Your task to perform on an android device: turn off smart reply in the gmail app Image 0: 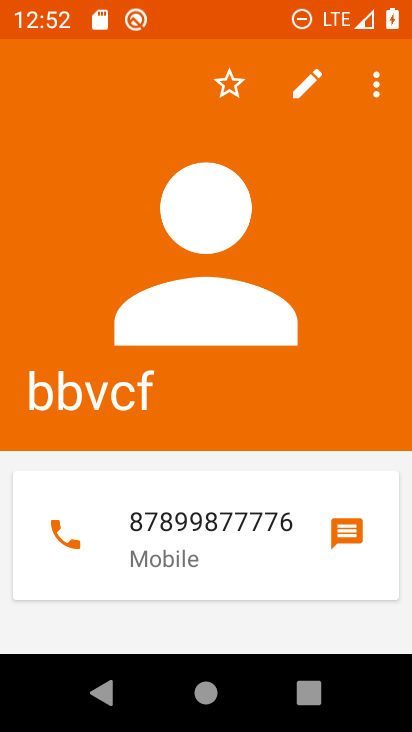
Step 0: press home button
Your task to perform on an android device: turn off smart reply in the gmail app Image 1: 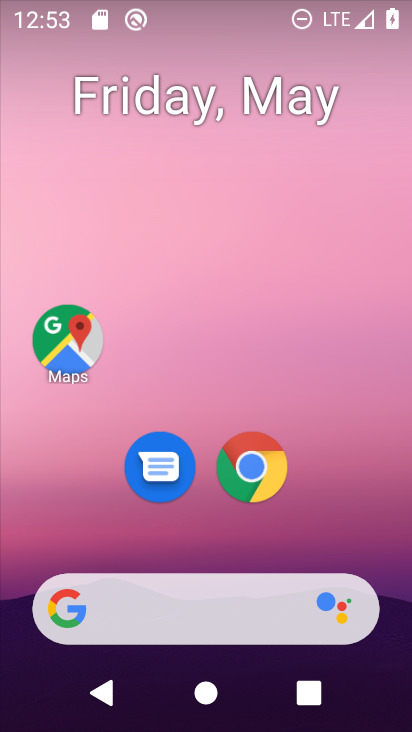
Step 1: drag from (347, 514) to (379, 2)
Your task to perform on an android device: turn off smart reply in the gmail app Image 2: 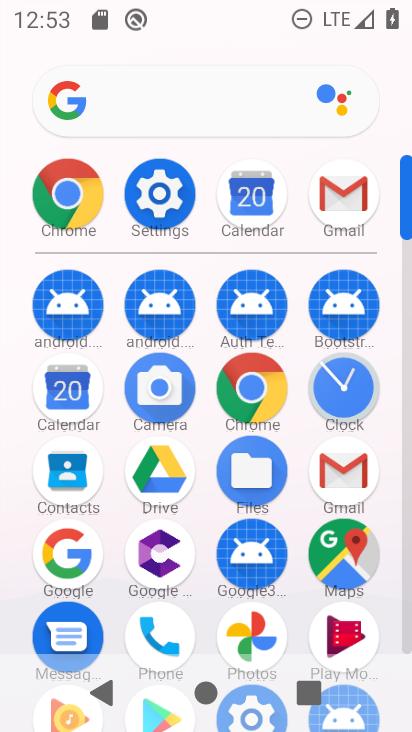
Step 2: click (339, 468)
Your task to perform on an android device: turn off smart reply in the gmail app Image 3: 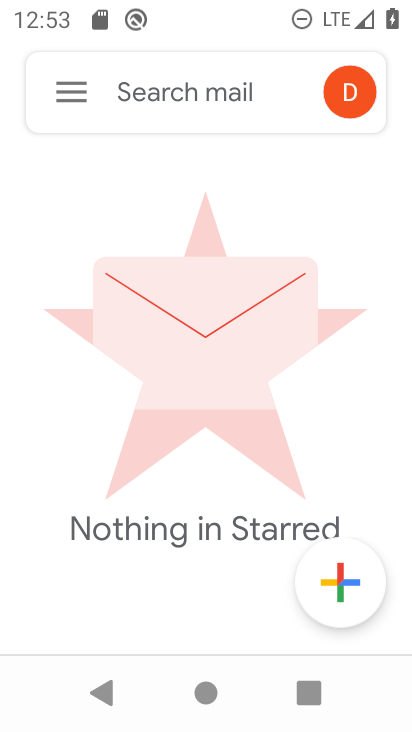
Step 3: click (64, 103)
Your task to perform on an android device: turn off smart reply in the gmail app Image 4: 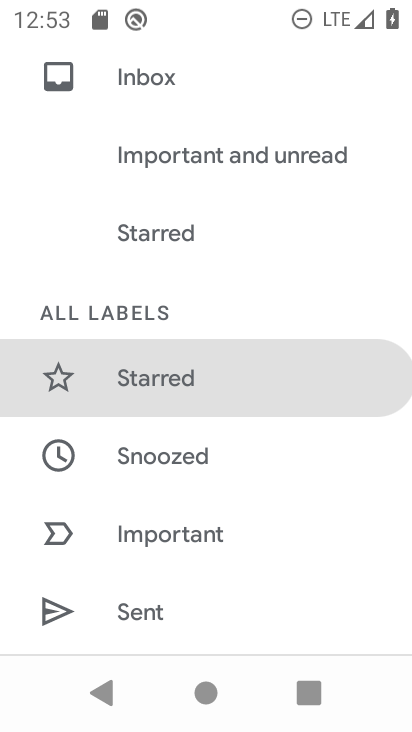
Step 4: drag from (157, 616) to (160, 68)
Your task to perform on an android device: turn off smart reply in the gmail app Image 5: 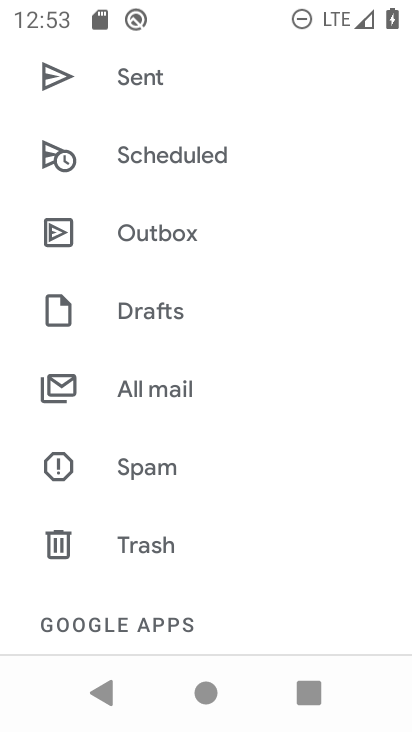
Step 5: drag from (253, 634) to (184, 118)
Your task to perform on an android device: turn off smart reply in the gmail app Image 6: 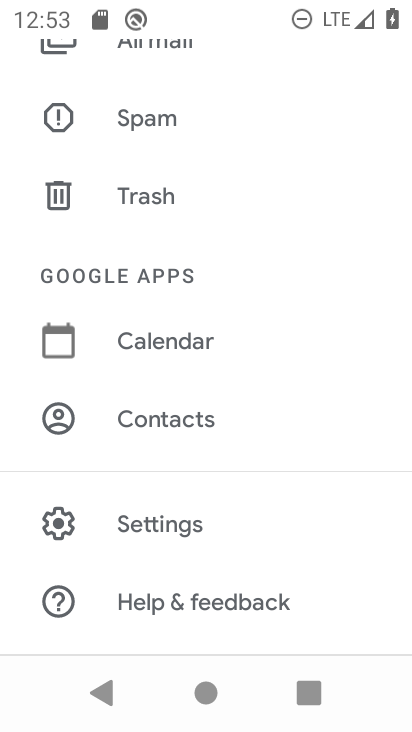
Step 6: click (168, 525)
Your task to perform on an android device: turn off smart reply in the gmail app Image 7: 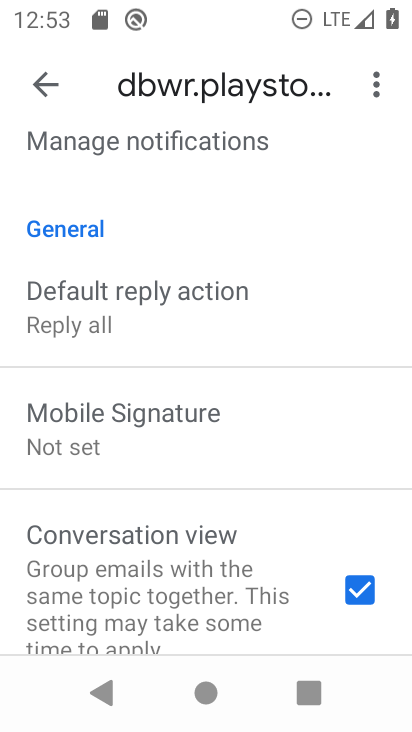
Step 7: task complete